Your task to perform on an android device: Search for seafood restaurants on Google Maps Image 0: 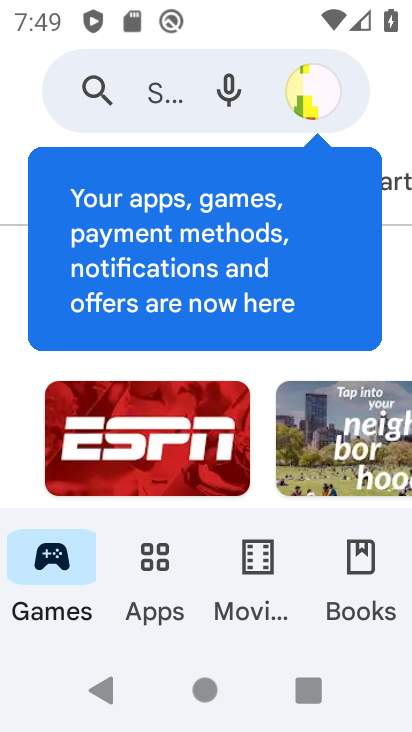
Step 0: press home button
Your task to perform on an android device: Search for seafood restaurants on Google Maps Image 1: 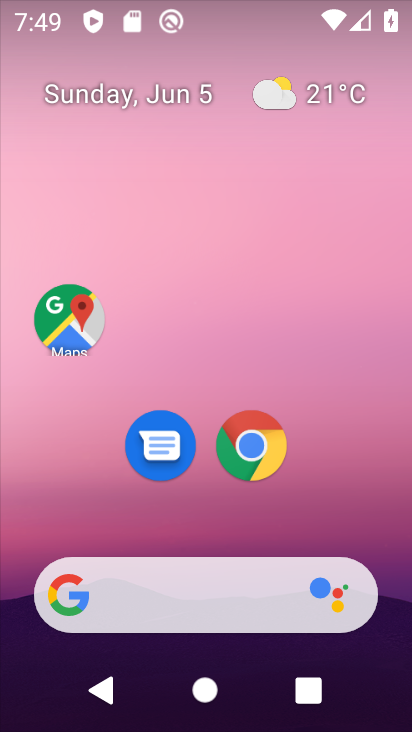
Step 1: click (65, 340)
Your task to perform on an android device: Search for seafood restaurants on Google Maps Image 2: 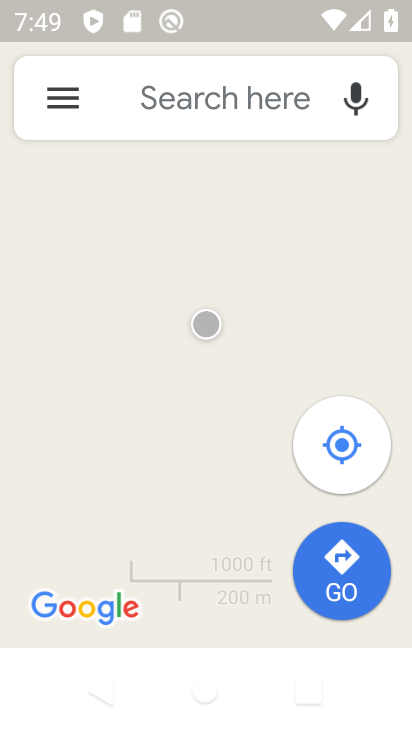
Step 2: click (173, 113)
Your task to perform on an android device: Search for seafood restaurants on Google Maps Image 3: 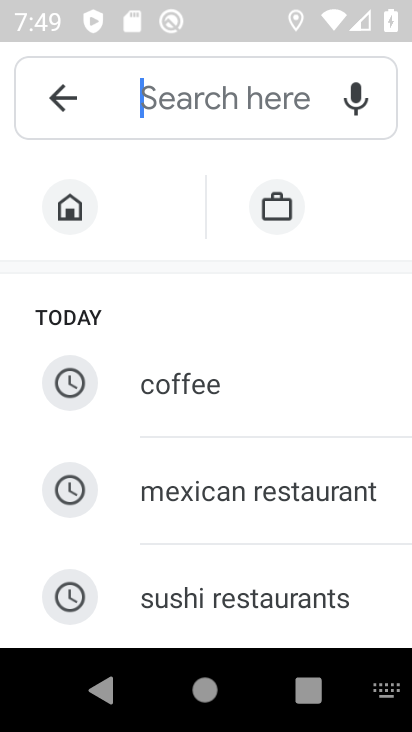
Step 3: type " seafood restaurants"
Your task to perform on an android device: Search for seafood restaurants on Google Maps Image 4: 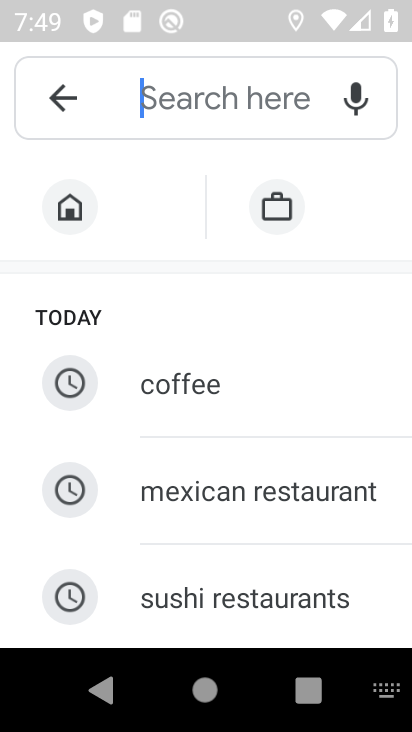
Step 4: click (197, 93)
Your task to perform on an android device: Search for seafood restaurants on Google Maps Image 5: 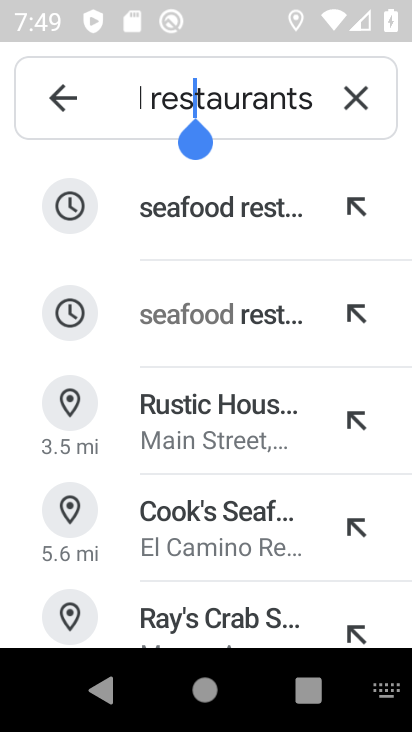
Step 5: click (219, 210)
Your task to perform on an android device: Search for seafood restaurants on Google Maps Image 6: 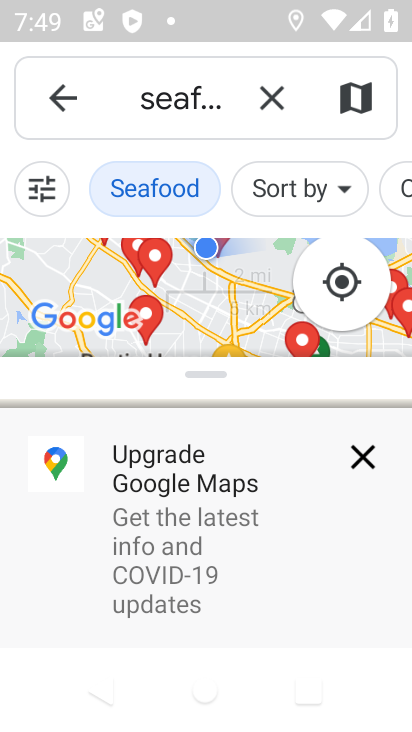
Step 6: click (359, 451)
Your task to perform on an android device: Search for seafood restaurants on Google Maps Image 7: 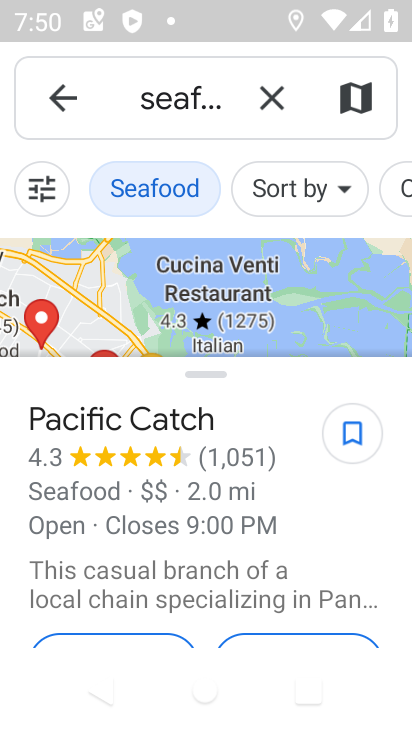
Step 7: task complete